Your task to perform on an android device: delete a single message in the gmail app Image 0: 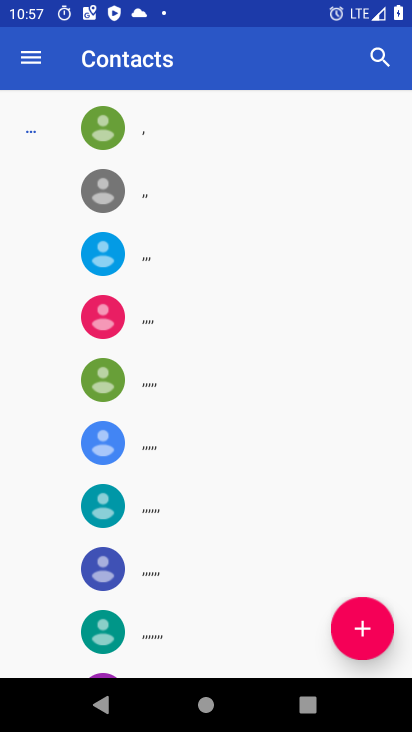
Step 0: press home button
Your task to perform on an android device: delete a single message in the gmail app Image 1: 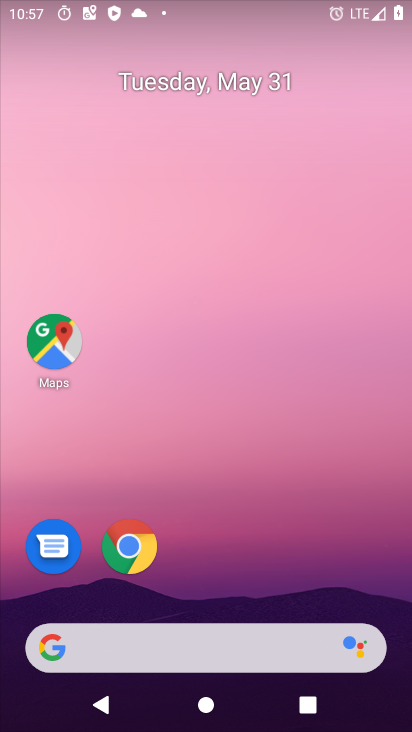
Step 1: drag from (246, 551) to (232, 469)
Your task to perform on an android device: delete a single message in the gmail app Image 2: 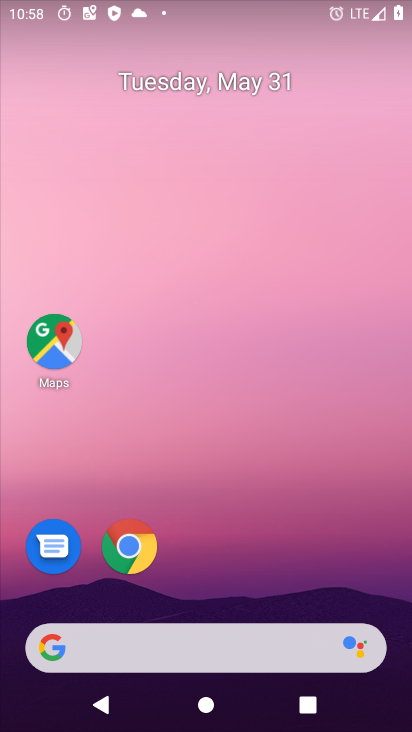
Step 2: drag from (250, 526) to (257, 155)
Your task to perform on an android device: delete a single message in the gmail app Image 3: 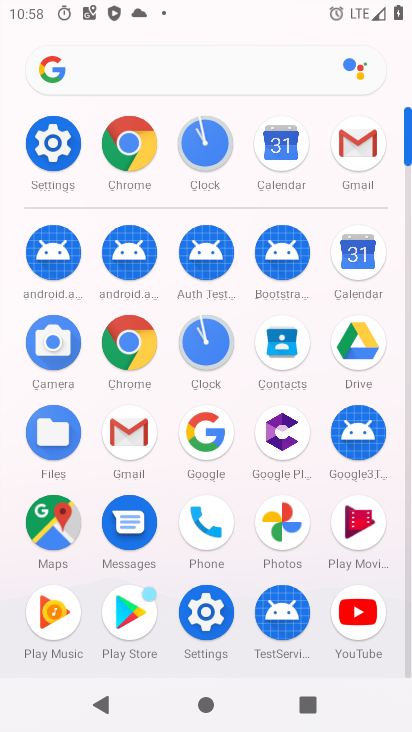
Step 3: click (363, 151)
Your task to perform on an android device: delete a single message in the gmail app Image 4: 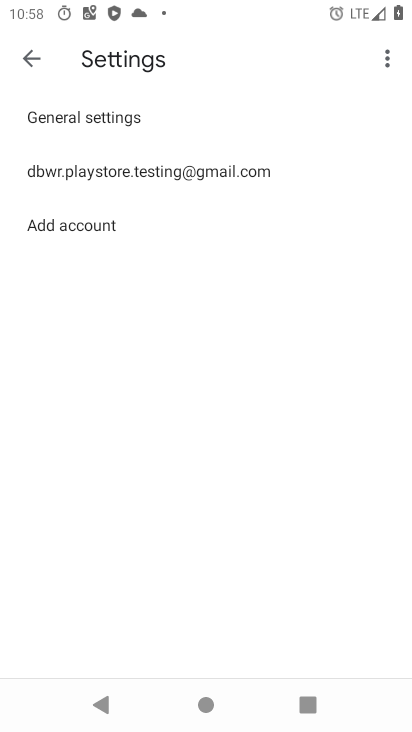
Step 4: press back button
Your task to perform on an android device: delete a single message in the gmail app Image 5: 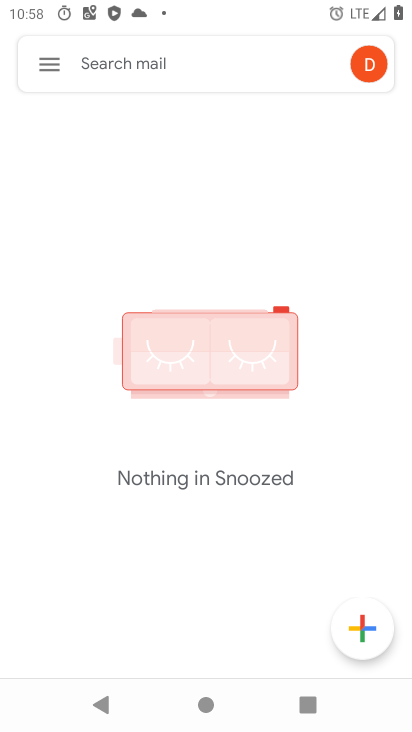
Step 5: click (45, 79)
Your task to perform on an android device: delete a single message in the gmail app Image 6: 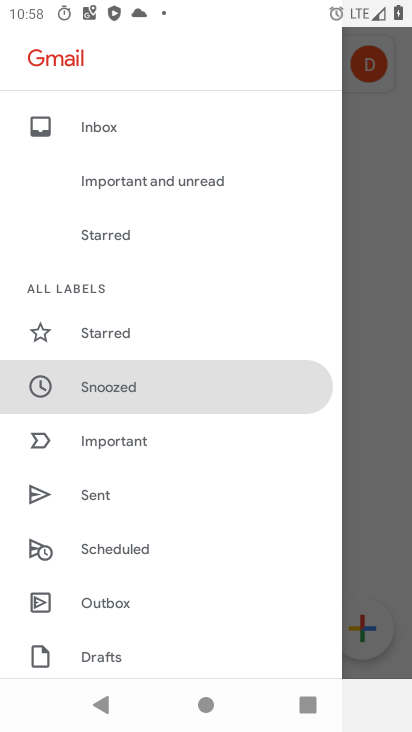
Step 6: drag from (166, 629) to (142, 229)
Your task to perform on an android device: delete a single message in the gmail app Image 7: 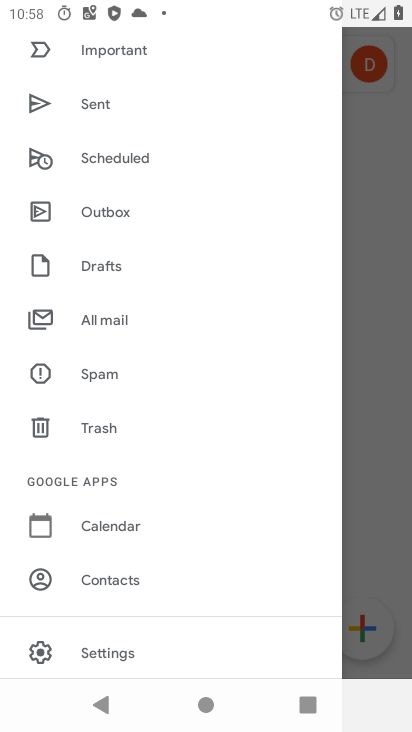
Step 7: click (57, 316)
Your task to perform on an android device: delete a single message in the gmail app Image 8: 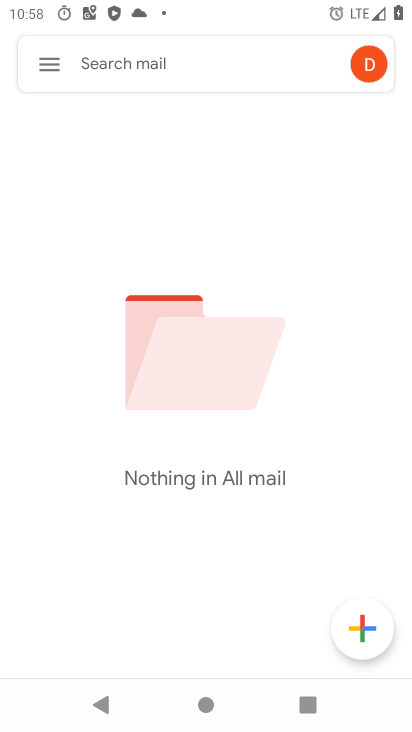
Step 8: task complete